Your task to perform on an android device: Go to location settings Image 0: 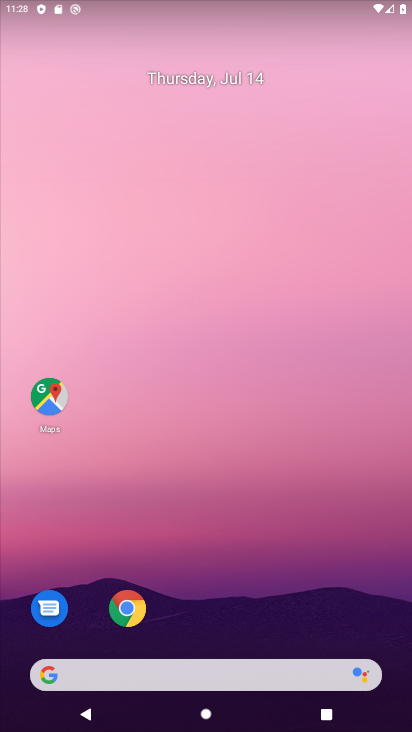
Step 0: drag from (44, 615) to (287, 31)
Your task to perform on an android device: Go to location settings Image 1: 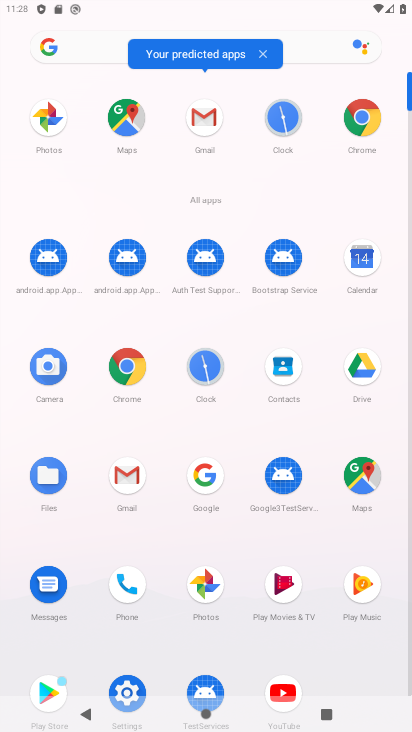
Step 1: click (127, 693)
Your task to perform on an android device: Go to location settings Image 2: 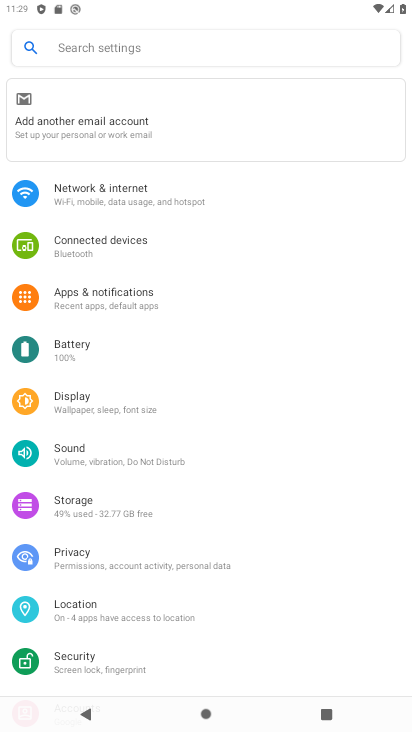
Step 2: click (81, 606)
Your task to perform on an android device: Go to location settings Image 3: 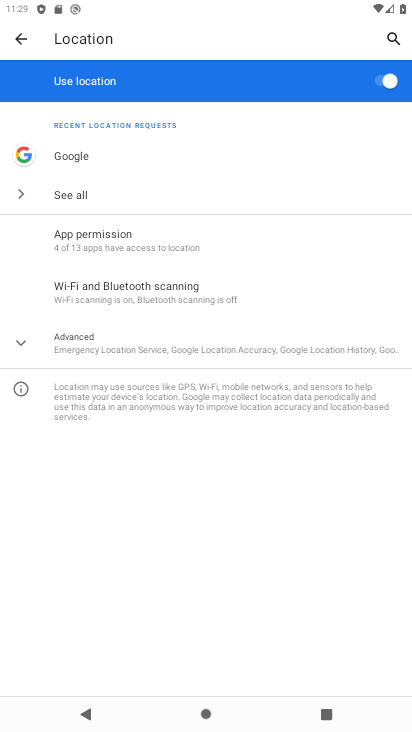
Step 3: task complete